Your task to perform on an android device: change notifications settings Image 0: 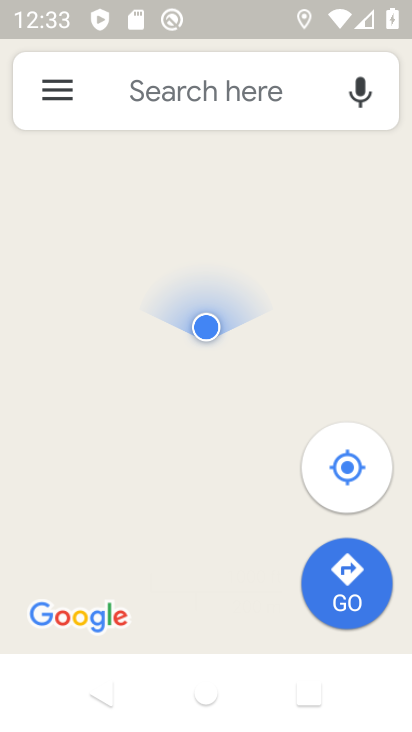
Step 0: press home button
Your task to perform on an android device: change notifications settings Image 1: 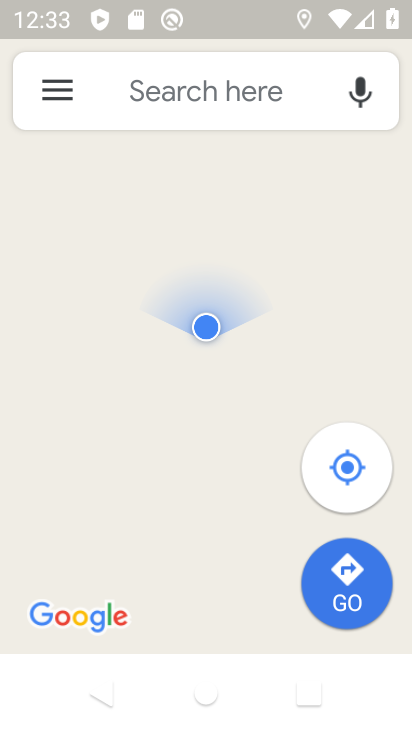
Step 1: drag from (212, 346) to (259, 57)
Your task to perform on an android device: change notifications settings Image 2: 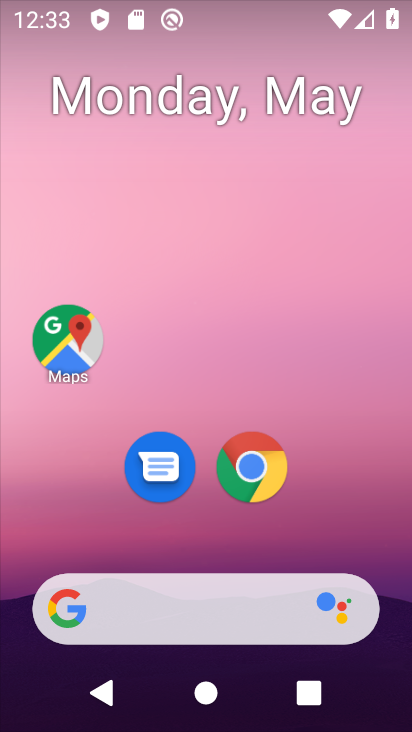
Step 2: drag from (194, 525) to (211, 68)
Your task to perform on an android device: change notifications settings Image 3: 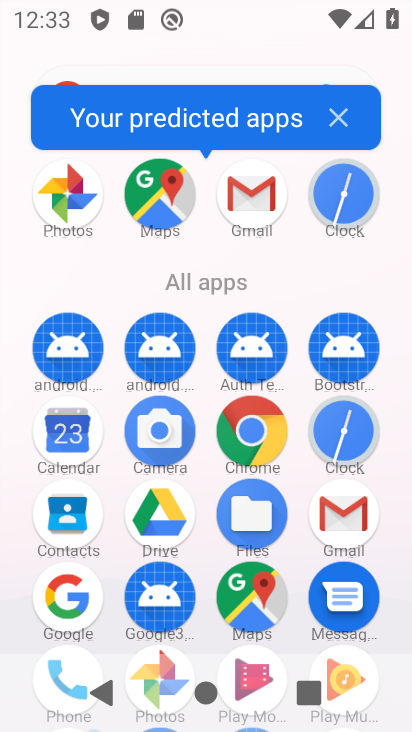
Step 3: drag from (201, 473) to (259, 64)
Your task to perform on an android device: change notifications settings Image 4: 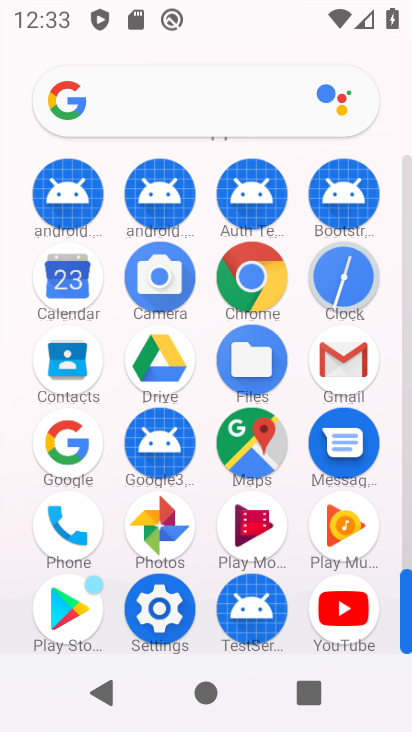
Step 4: click (163, 621)
Your task to perform on an android device: change notifications settings Image 5: 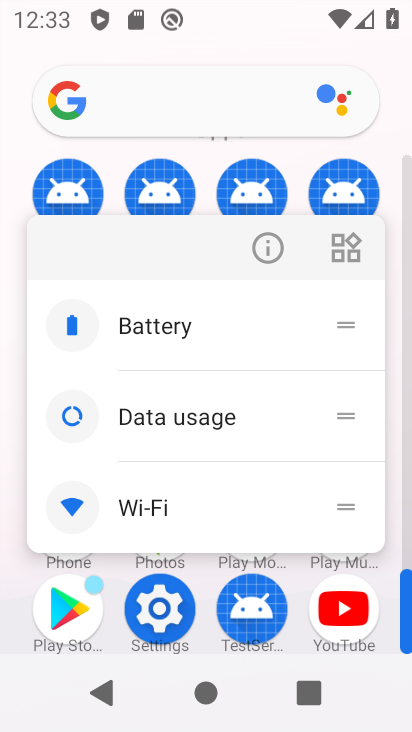
Step 5: click (271, 245)
Your task to perform on an android device: change notifications settings Image 6: 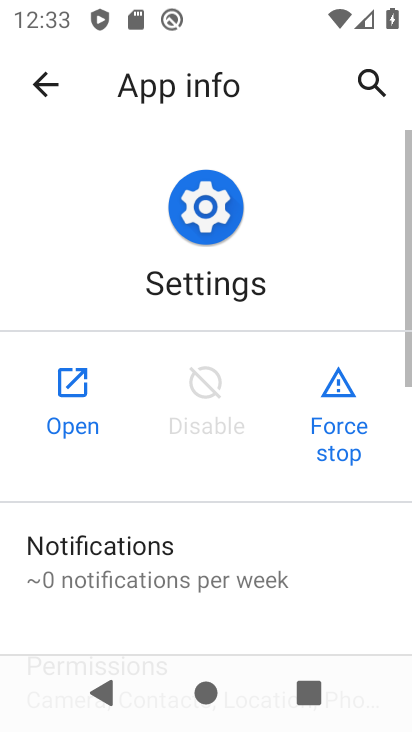
Step 6: click (79, 389)
Your task to perform on an android device: change notifications settings Image 7: 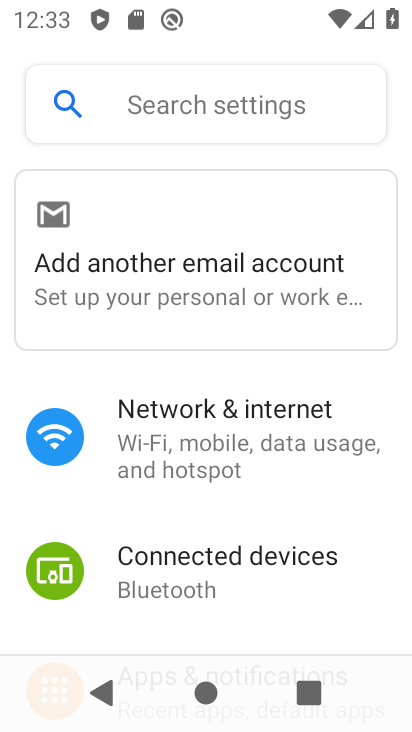
Step 7: drag from (189, 499) to (187, 309)
Your task to perform on an android device: change notifications settings Image 8: 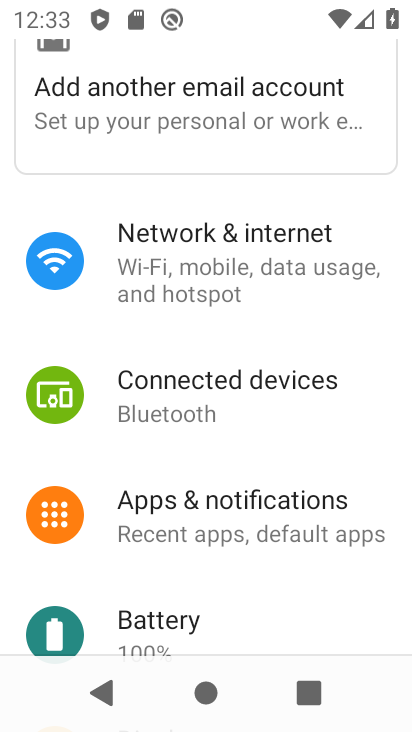
Step 8: drag from (191, 538) to (256, 195)
Your task to perform on an android device: change notifications settings Image 9: 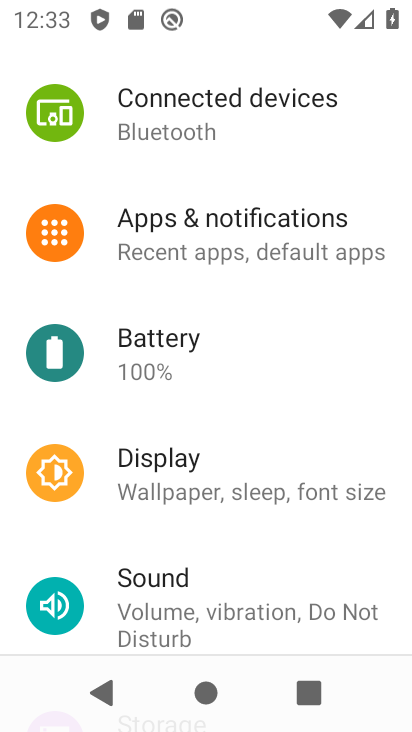
Step 9: click (187, 244)
Your task to perform on an android device: change notifications settings Image 10: 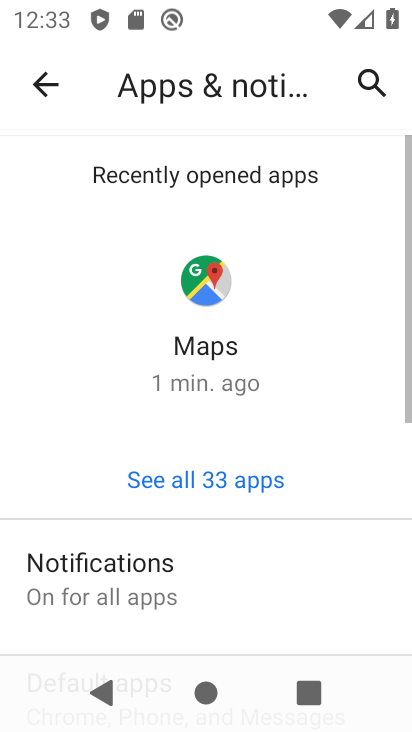
Step 10: drag from (216, 613) to (255, 241)
Your task to perform on an android device: change notifications settings Image 11: 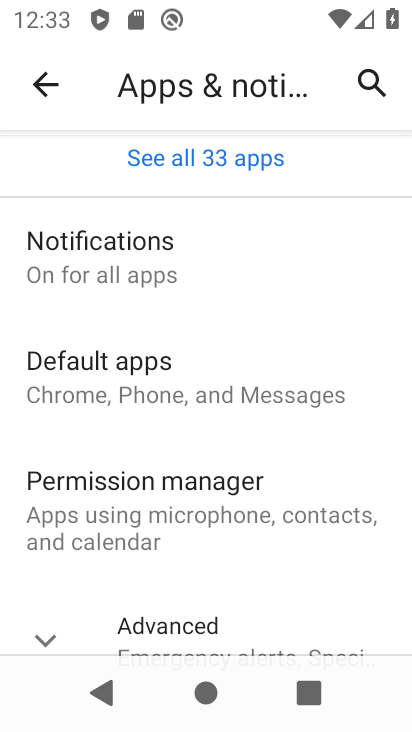
Step 11: click (139, 264)
Your task to perform on an android device: change notifications settings Image 12: 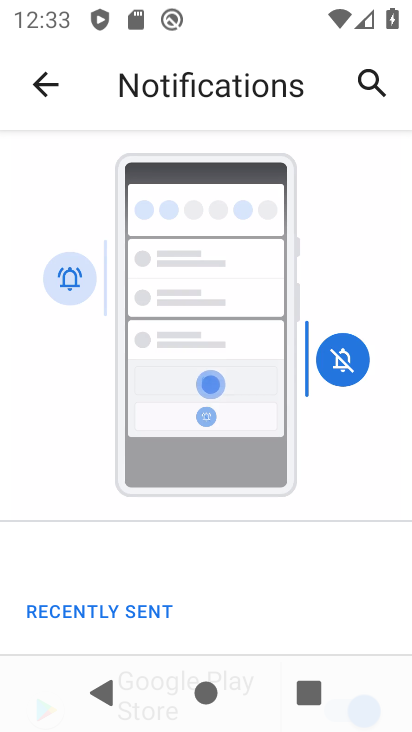
Step 12: drag from (211, 566) to (261, 40)
Your task to perform on an android device: change notifications settings Image 13: 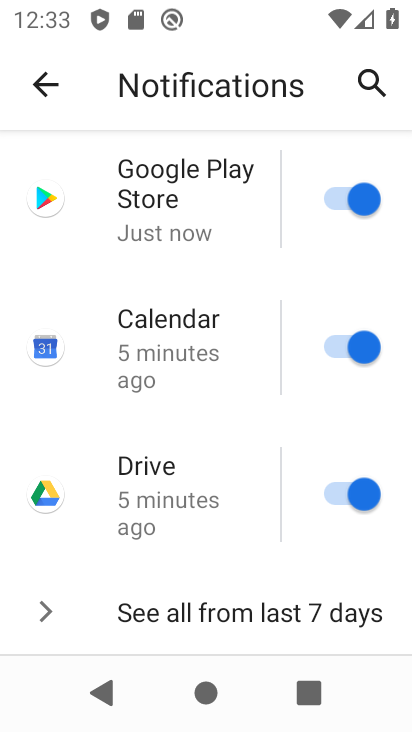
Step 13: drag from (215, 555) to (256, 103)
Your task to perform on an android device: change notifications settings Image 14: 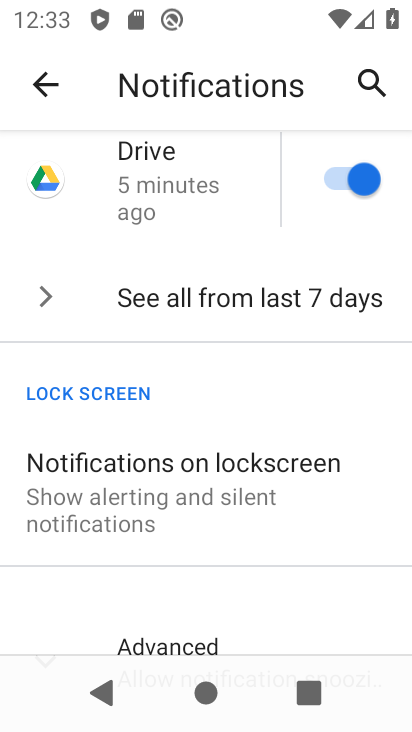
Step 14: drag from (225, 598) to (240, 148)
Your task to perform on an android device: change notifications settings Image 15: 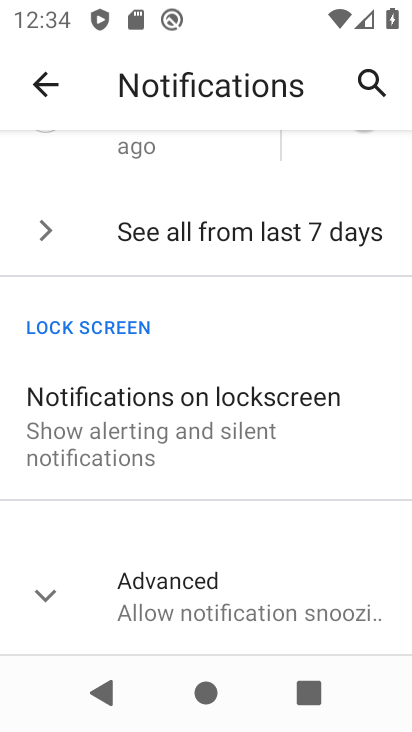
Step 15: drag from (288, 216) to (261, 692)
Your task to perform on an android device: change notifications settings Image 16: 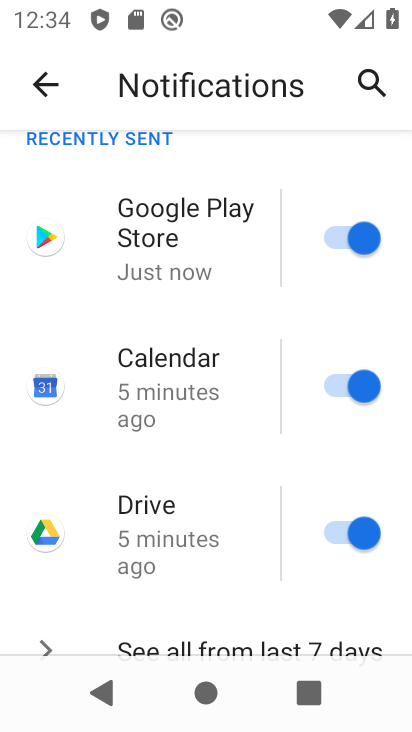
Step 16: click (345, 233)
Your task to perform on an android device: change notifications settings Image 17: 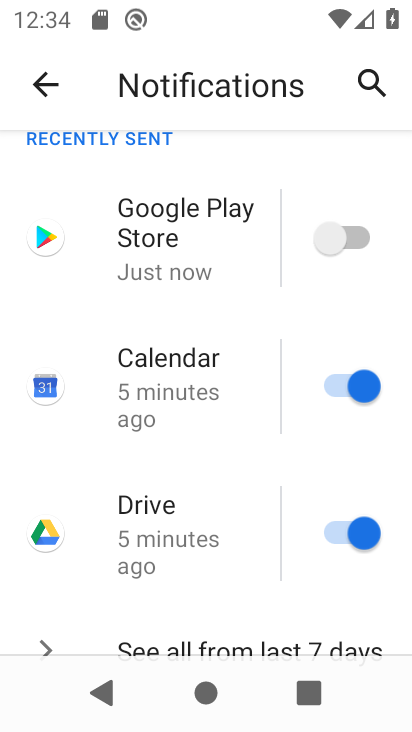
Step 17: task complete